Your task to perform on an android device: Open my contact list Image 0: 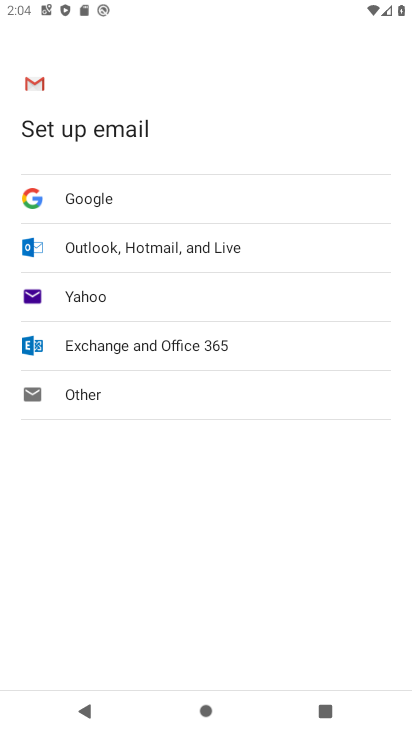
Step 0: press home button
Your task to perform on an android device: Open my contact list Image 1: 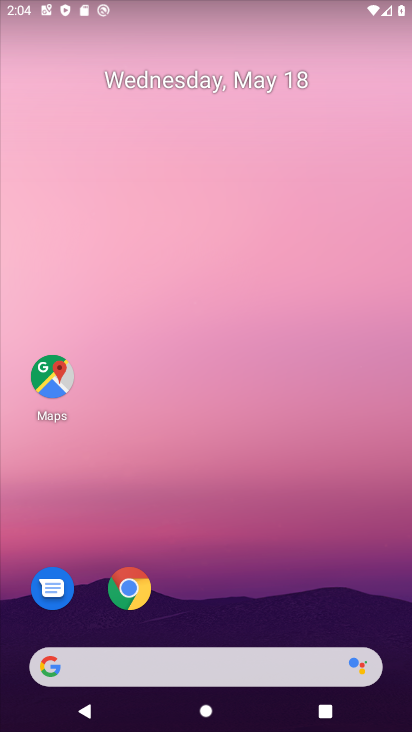
Step 1: drag from (335, 591) to (329, 144)
Your task to perform on an android device: Open my contact list Image 2: 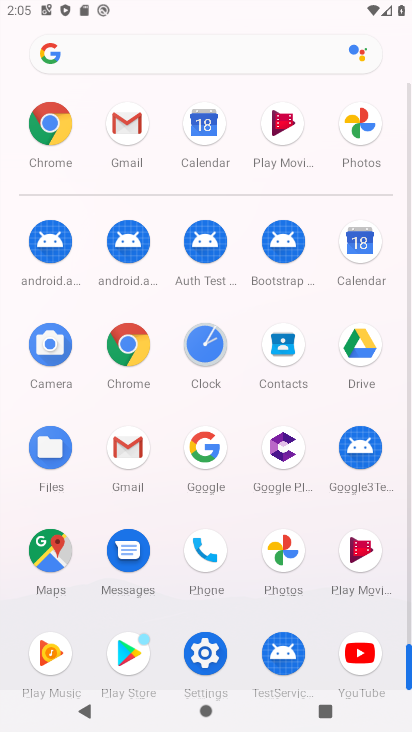
Step 2: drag from (241, 581) to (251, 380)
Your task to perform on an android device: Open my contact list Image 3: 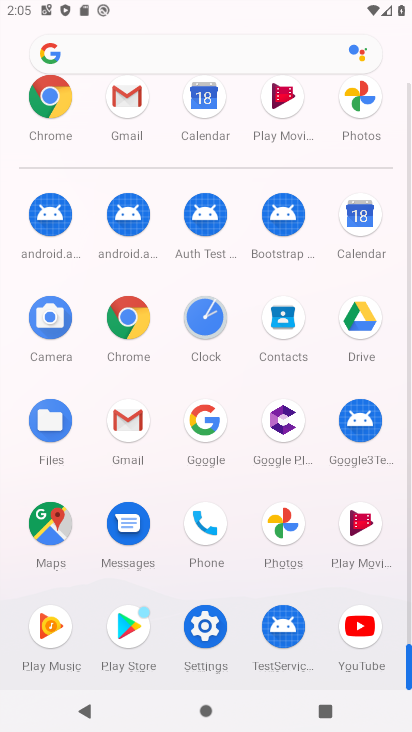
Step 3: click (275, 322)
Your task to perform on an android device: Open my contact list Image 4: 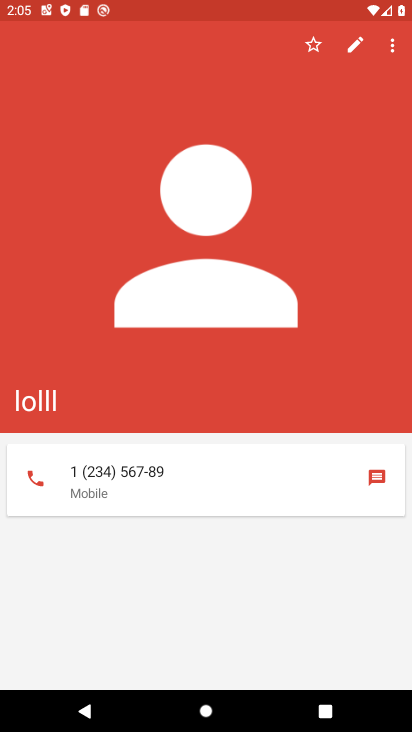
Step 4: press back button
Your task to perform on an android device: Open my contact list Image 5: 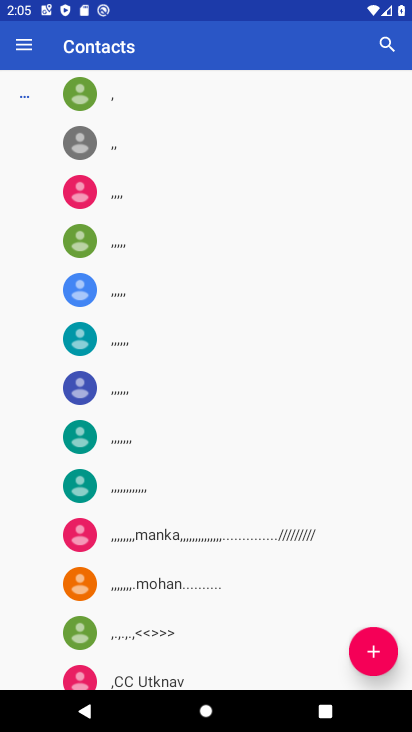
Step 5: click (355, 658)
Your task to perform on an android device: Open my contact list Image 6: 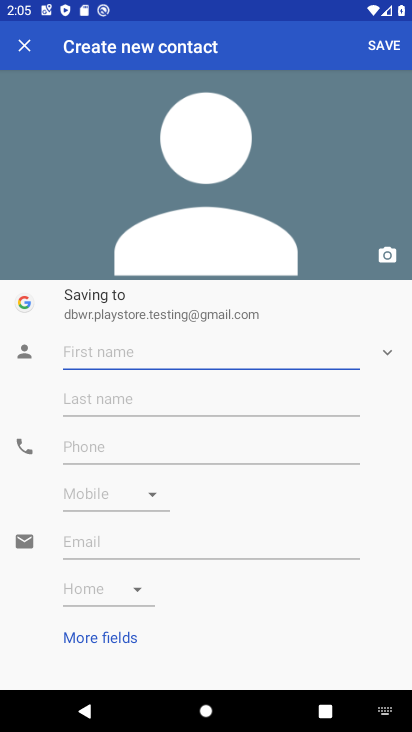
Step 6: click (115, 355)
Your task to perform on an android device: Open my contact list Image 7: 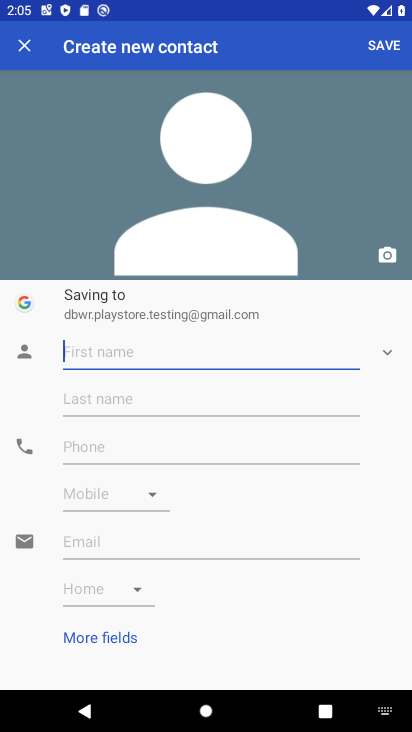
Step 7: type "fav "
Your task to perform on an android device: Open my contact list Image 8: 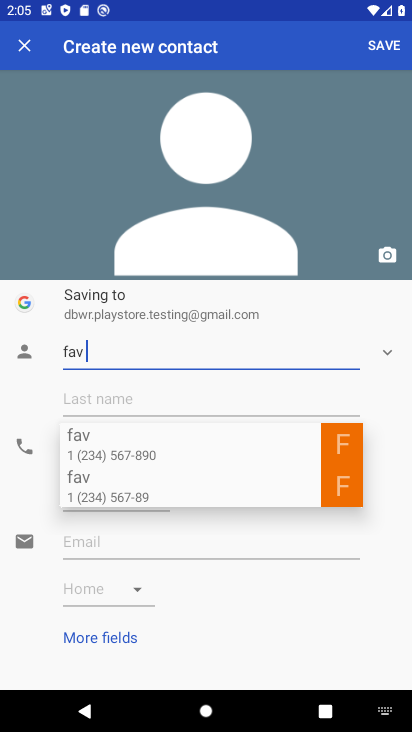
Step 8: click (398, 430)
Your task to perform on an android device: Open my contact list Image 9: 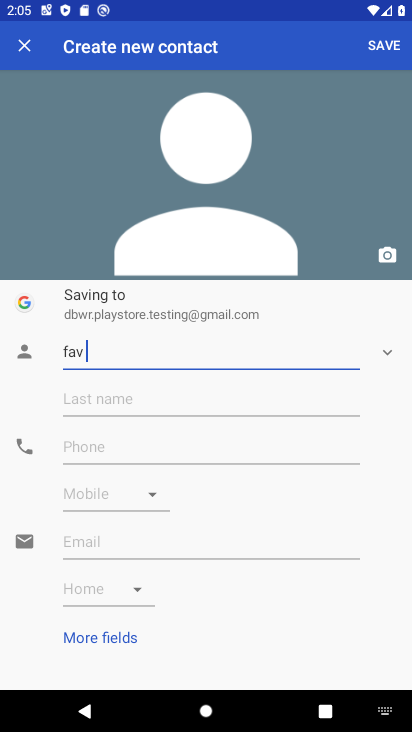
Step 9: click (222, 450)
Your task to perform on an android device: Open my contact list Image 10: 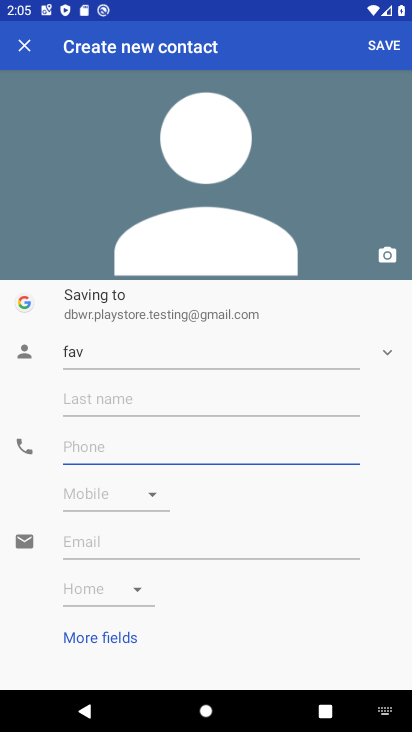
Step 10: type "1234567890"
Your task to perform on an android device: Open my contact list Image 11: 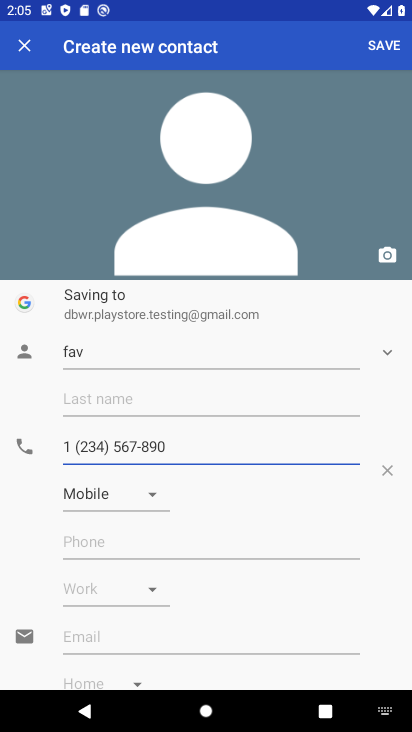
Step 11: click (398, 42)
Your task to perform on an android device: Open my contact list Image 12: 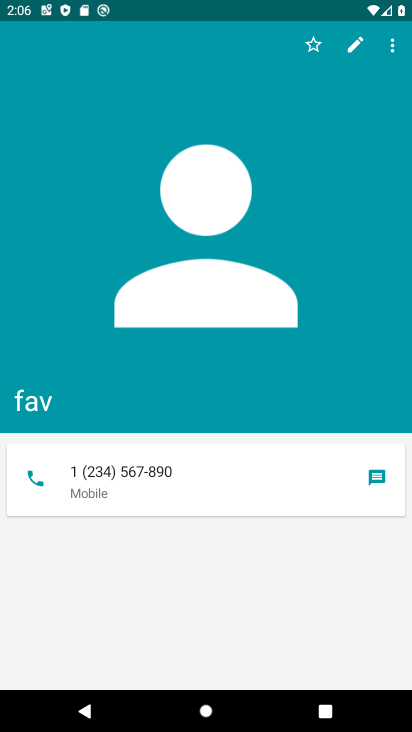
Step 12: task complete